Your task to perform on an android device: Go to Reddit.com Image 0: 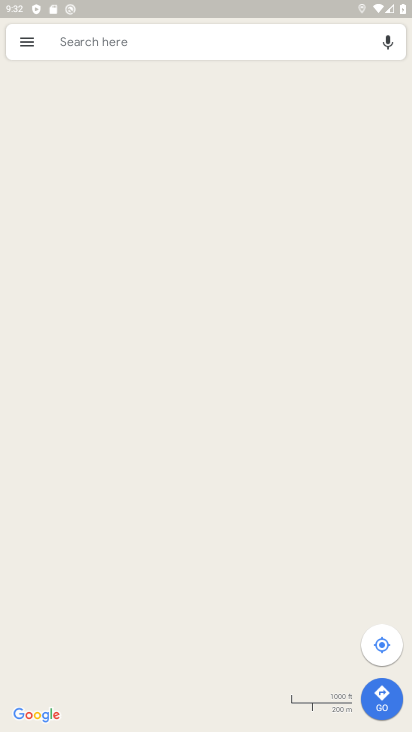
Step 0: press home button
Your task to perform on an android device: Go to Reddit.com Image 1: 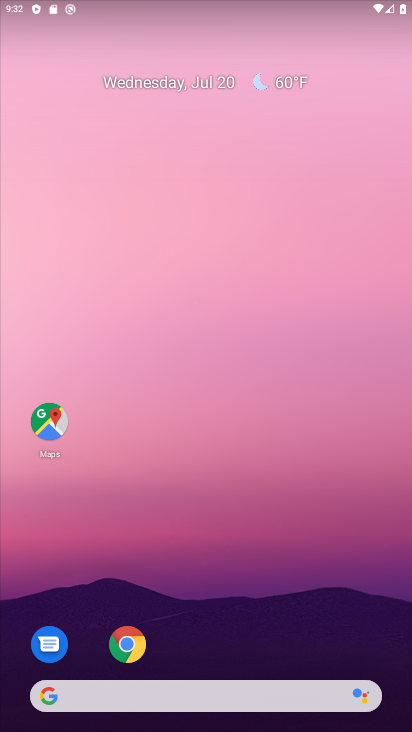
Step 1: drag from (178, 685) to (178, 316)
Your task to perform on an android device: Go to Reddit.com Image 2: 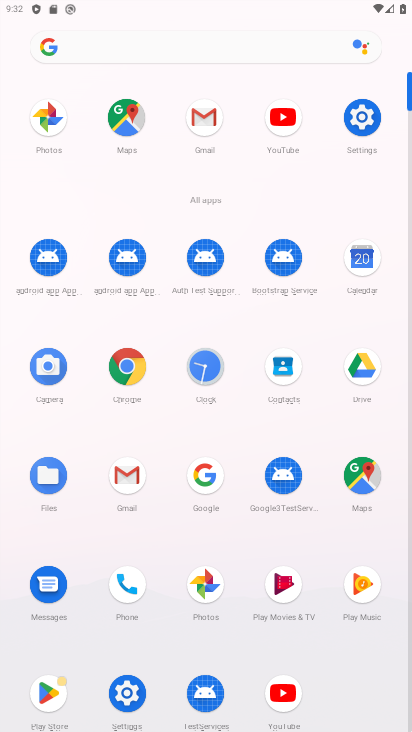
Step 2: click (201, 478)
Your task to perform on an android device: Go to Reddit.com Image 3: 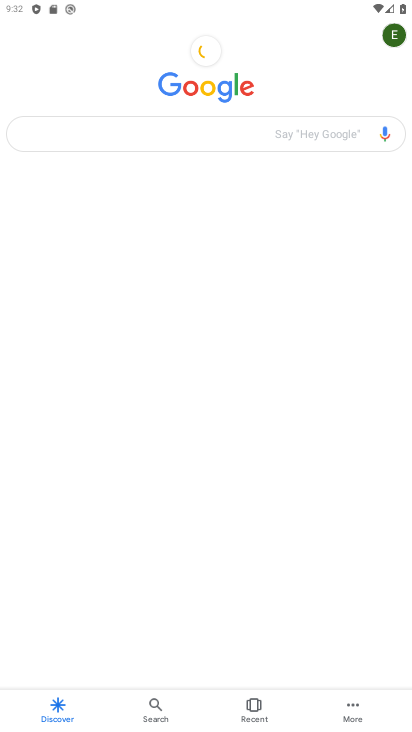
Step 3: click (130, 136)
Your task to perform on an android device: Go to Reddit.com Image 4: 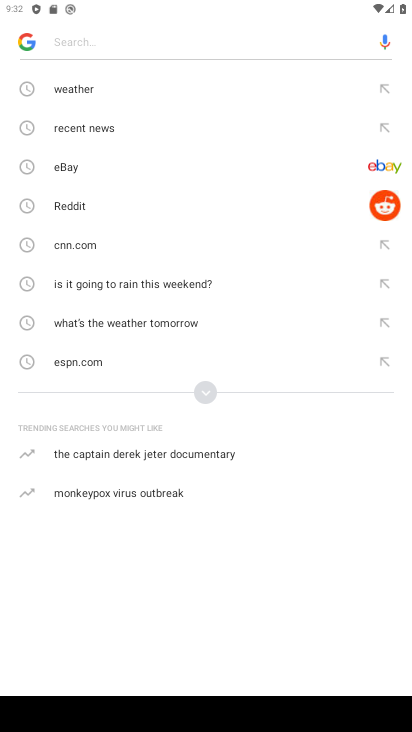
Step 4: click (74, 204)
Your task to perform on an android device: Go to Reddit.com Image 5: 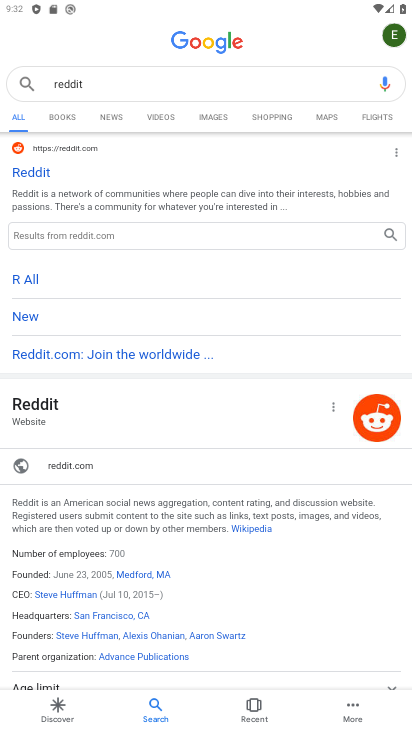
Step 5: click (35, 179)
Your task to perform on an android device: Go to Reddit.com Image 6: 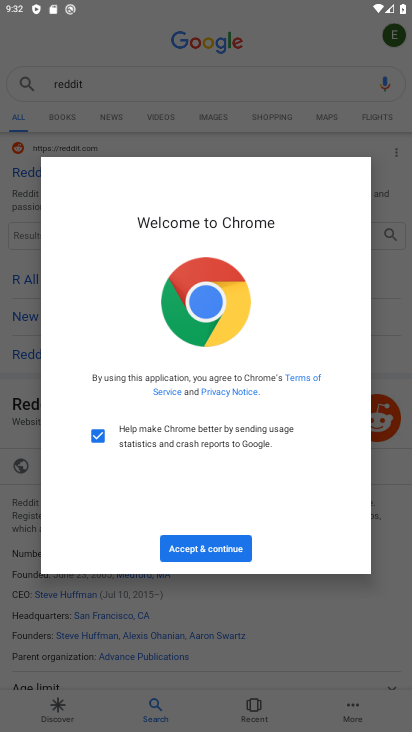
Step 6: click (192, 540)
Your task to perform on an android device: Go to Reddit.com Image 7: 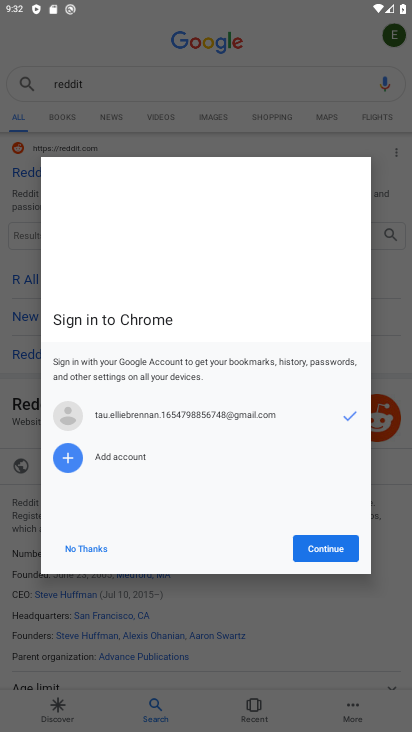
Step 7: click (302, 559)
Your task to perform on an android device: Go to Reddit.com Image 8: 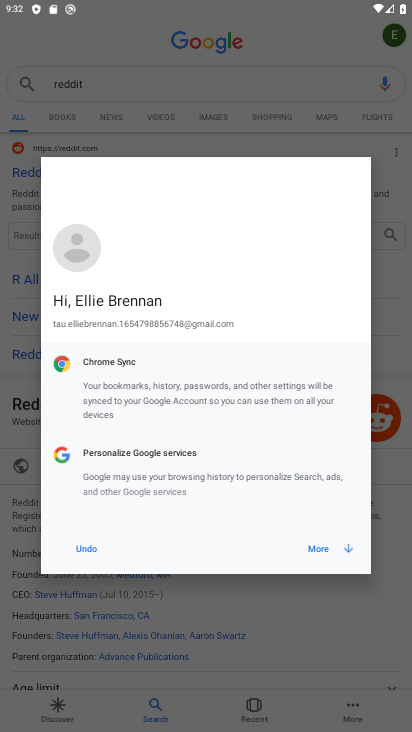
Step 8: click (310, 541)
Your task to perform on an android device: Go to Reddit.com Image 9: 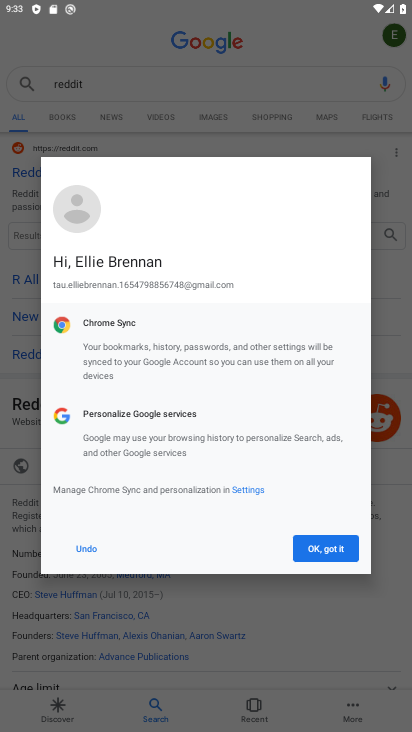
Step 9: click (320, 547)
Your task to perform on an android device: Go to Reddit.com Image 10: 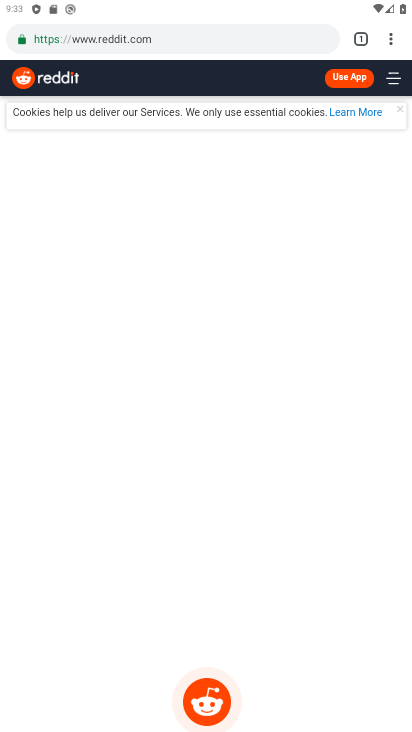
Step 10: task complete